Your task to perform on an android device: Open Wikipedia Image 0: 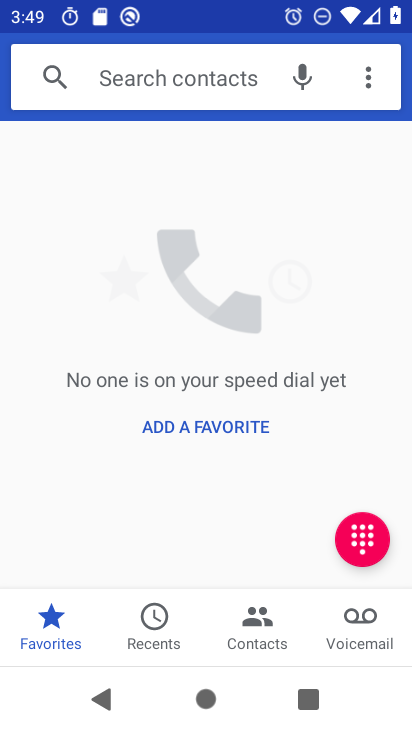
Step 0: press home button
Your task to perform on an android device: Open Wikipedia Image 1: 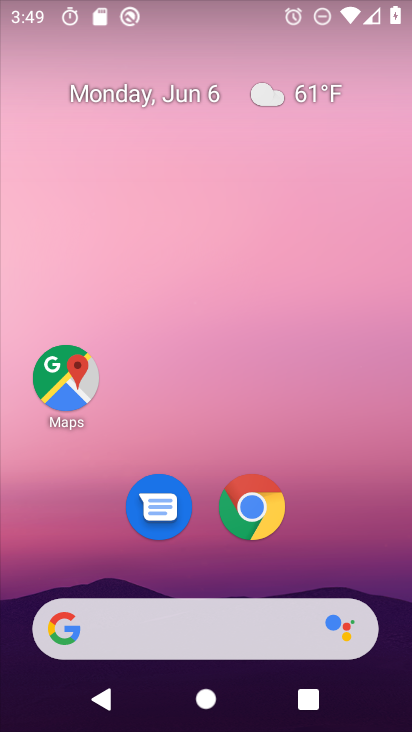
Step 1: click (252, 530)
Your task to perform on an android device: Open Wikipedia Image 2: 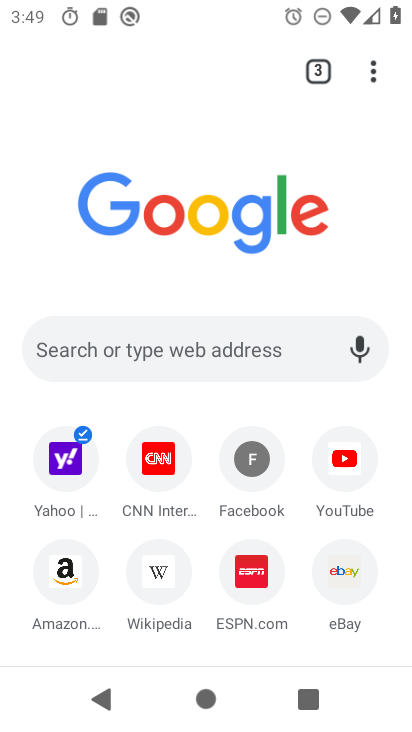
Step 2: click (150, 576)
Your task to perform on an android device: Open Wikipedia Image 3: 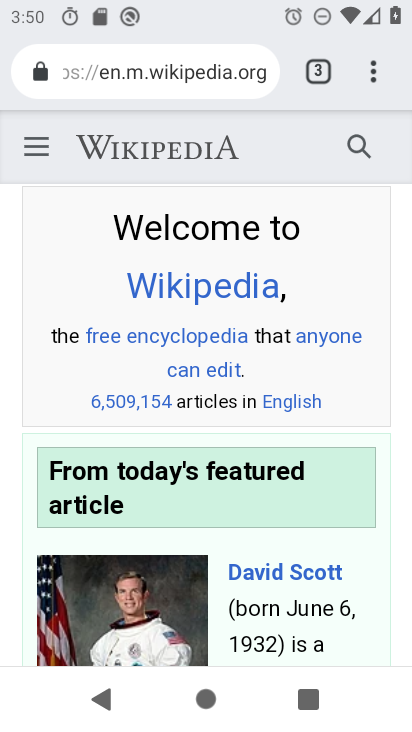
Step 3: task complete